Your task to perform on an android device: open wifi settings Image 0: 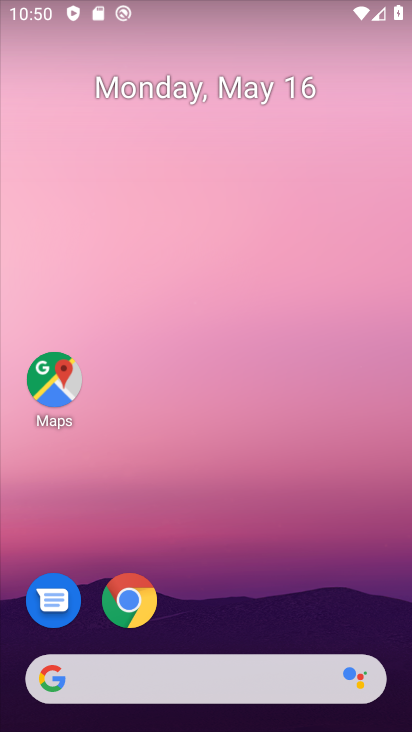
Step 0: drag from (183, 633) to (346, 267)
Your task to perform on an android device: open wifi settings Image 1: 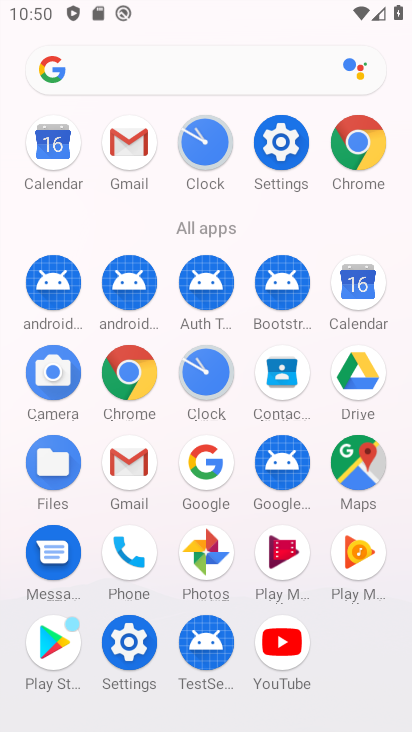
Step 1: click (289, 149)
Your task to perform on an android device: open wifi settings Image 2: 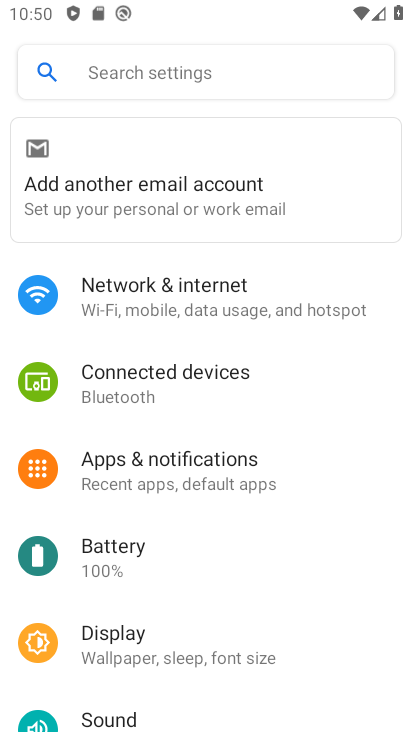
Step 2: click (124, 311)
Your task to perform on an android device: open wifi settings Image 3: 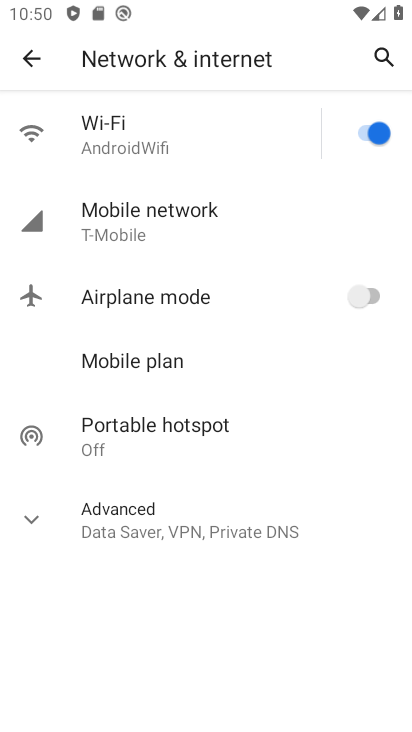
Step 3: click (150, 140)
Your task to perform on an android device: open wifi settings Image 4: 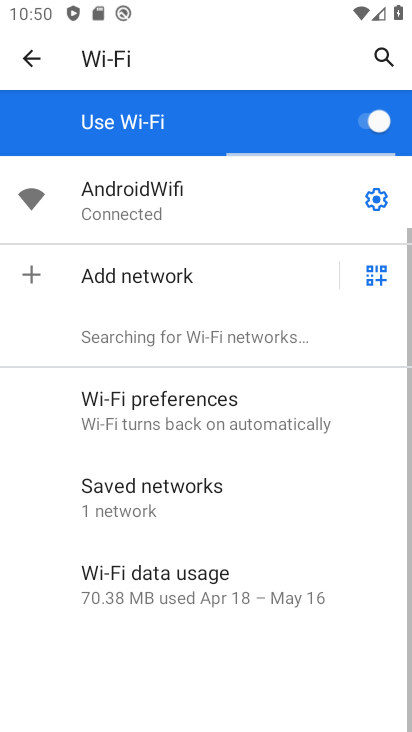
Step 4: task complete